Your task to perform on an android device: change notification settings in the gmail app Image 0: 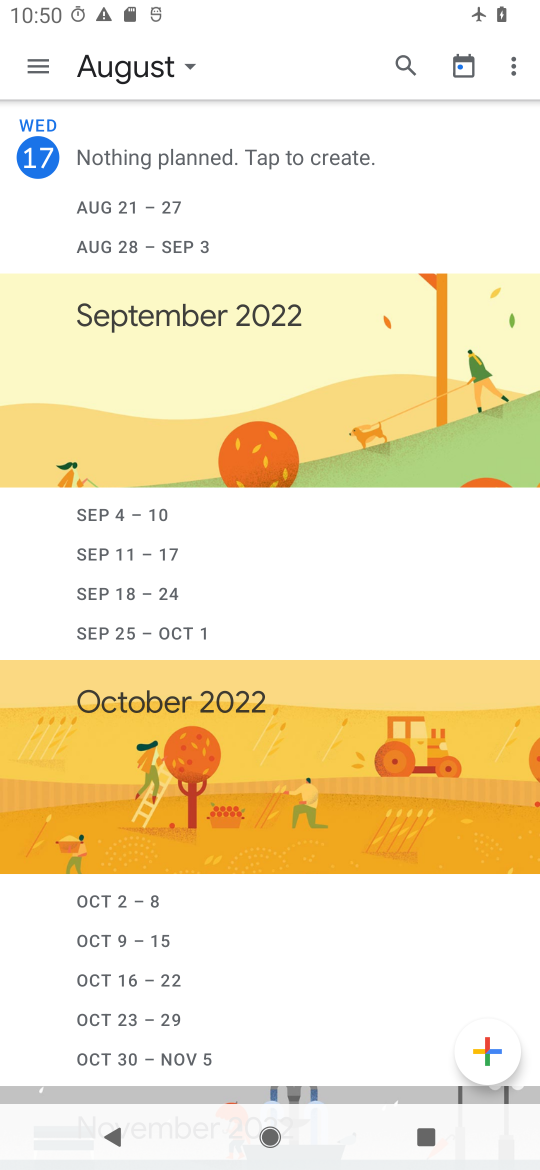
Step 0: press home button
Your task to perform on an android device: change notification settings in the gmail app Image 1: 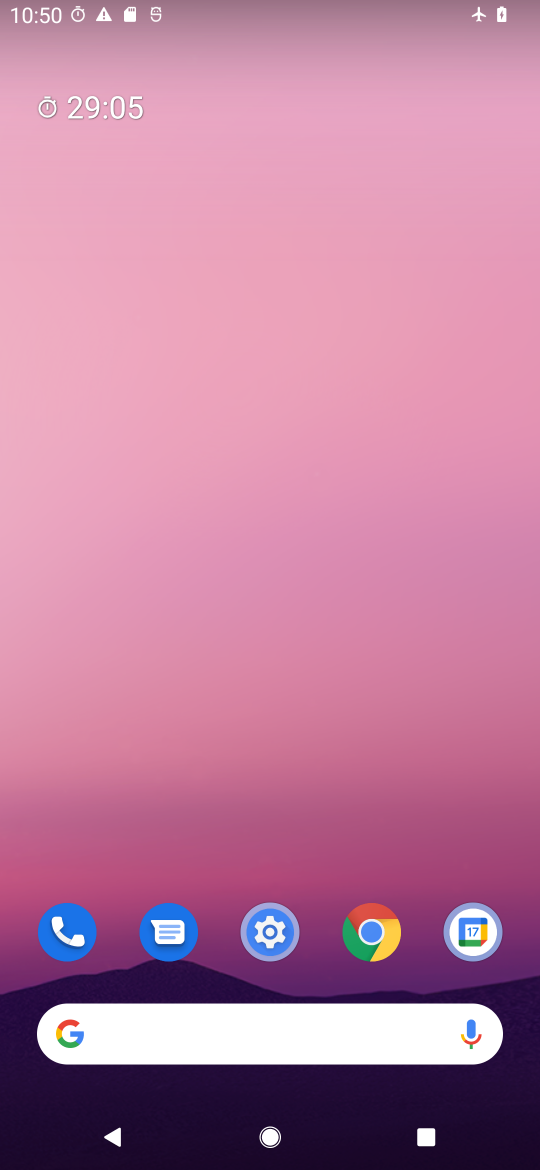
Step 1: drag from (291, 623) to (294, 384)
Your task to perform on an android device: change notification settings in the gmail app Image 2: 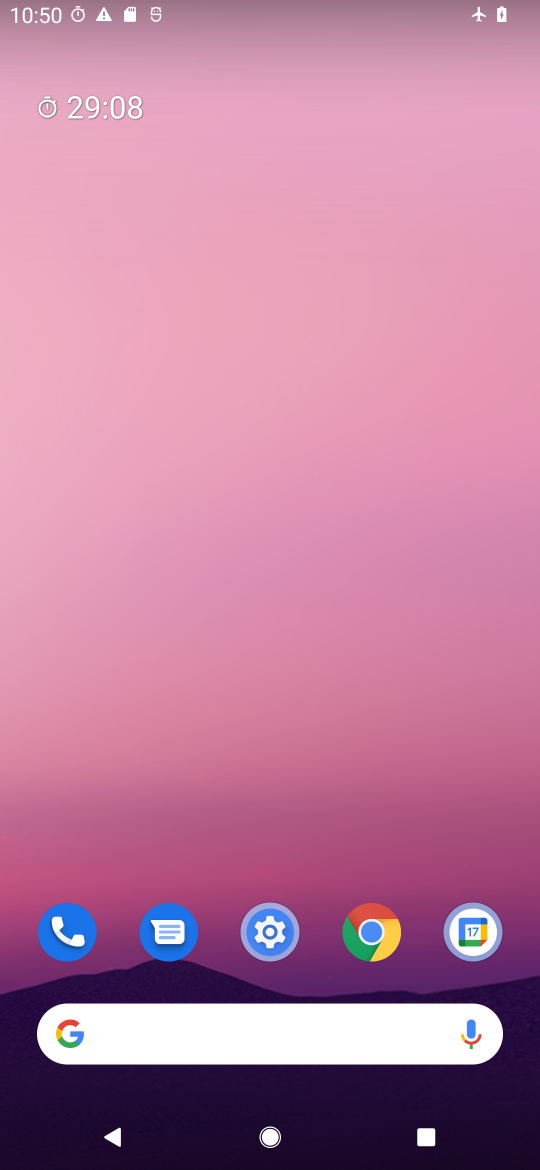
Step 2: drag from (297, 869) to (235, 119)
Your task to perform on an android device: change notification settings in the gmail app Image 3: 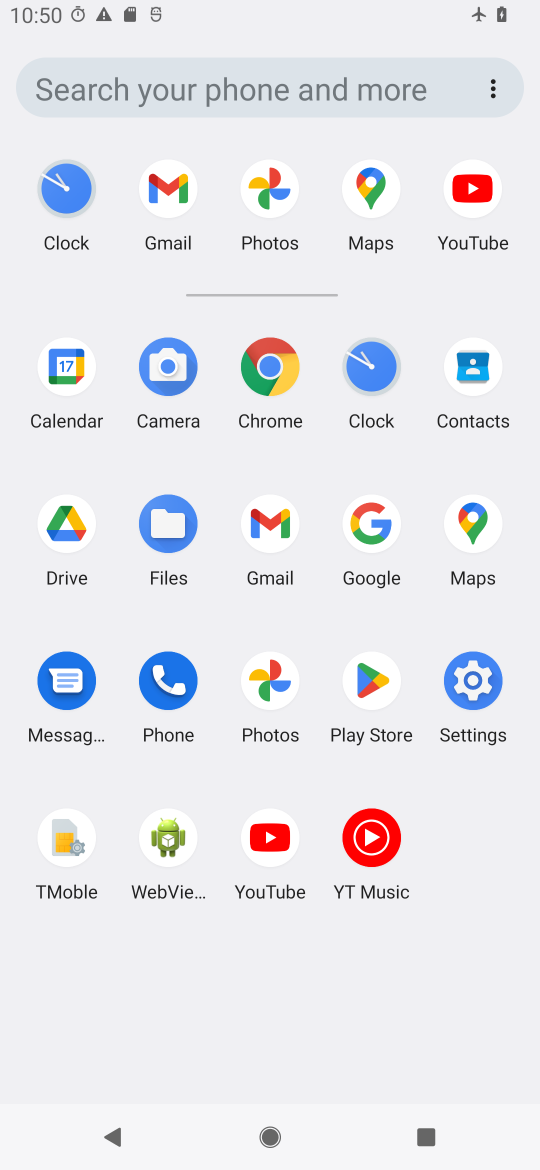
Step 3: click (172, 211)
Your task to perform on an android device: change notification settings in the gmail app Image 4: 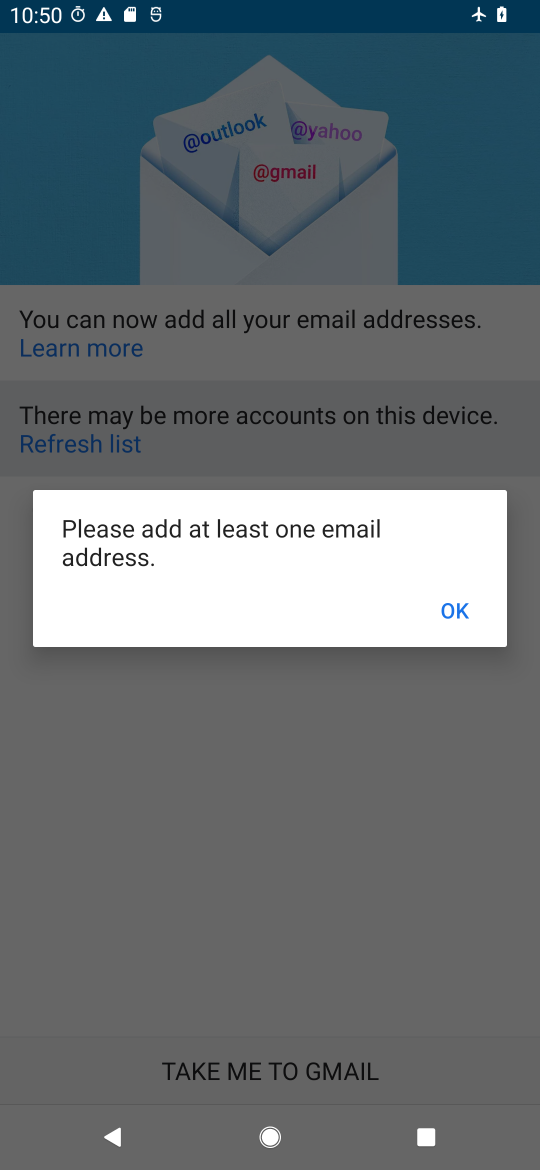
Step 4: click (440, 624)
Your task to perform on an android device: change notification settings in the gmail app Image 5: 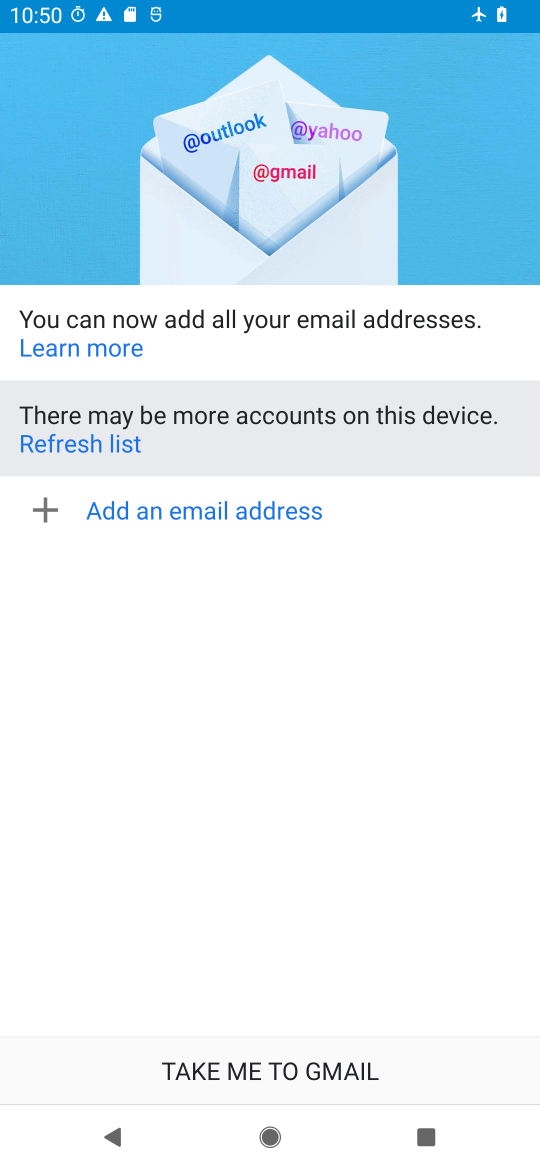
Step 5: click (326, 1052)
Your task to perform on an android device: change notification settings in the gmail app Image 6: 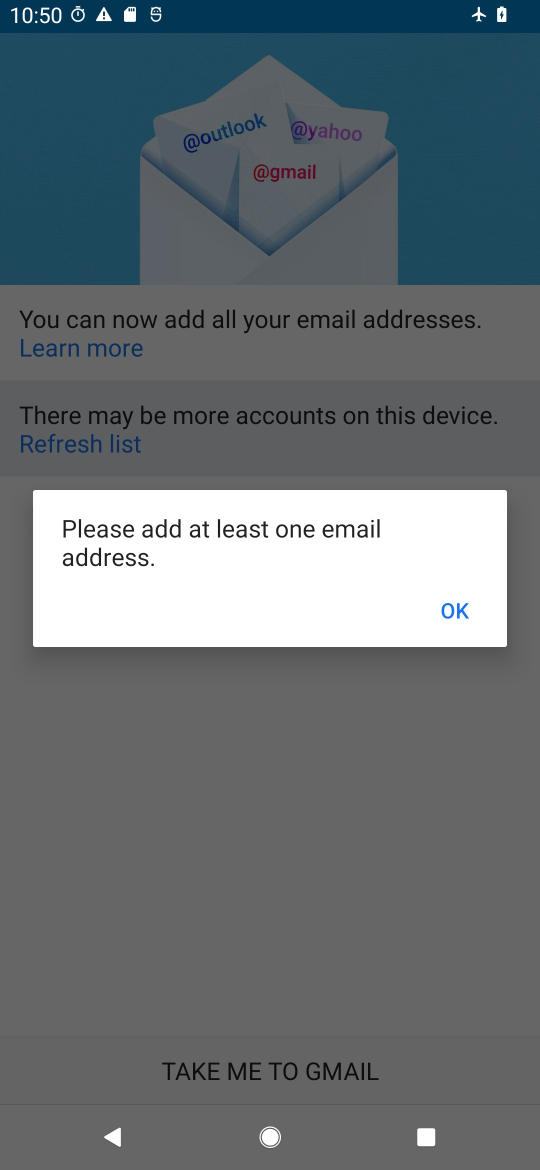
Step 6: task complete